Your task to perform on an android device: Go to Wikipedia Image 0: 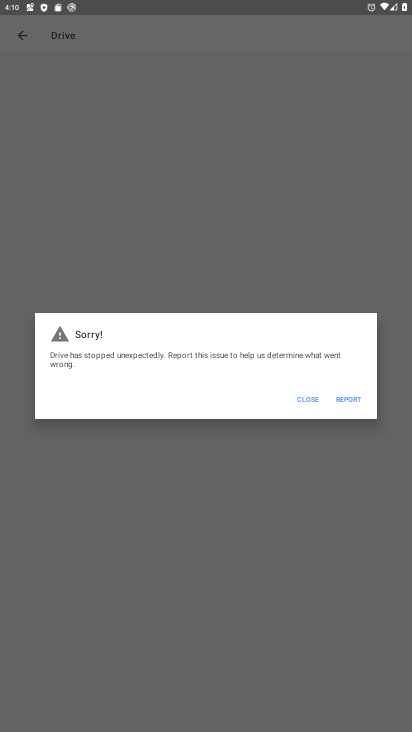
Step 0: press home button
Your task to perform on an android device: Go to Wikipedia Image 1: 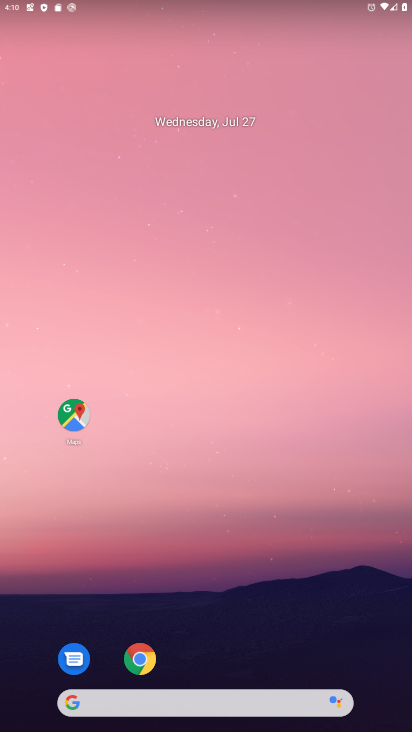
Step 1: click (151, 650)
Your task to perform on an android device: Go to Wikipedia Image 2: 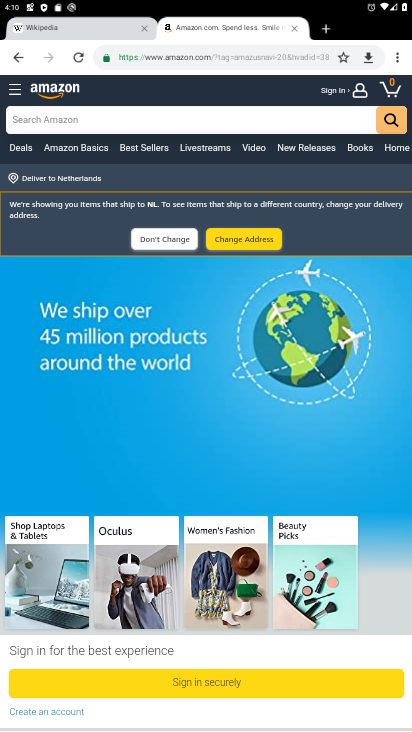
Step 2: click (194, 56)
Your task to perform on an android device: Go to Wikipedia Image 3: 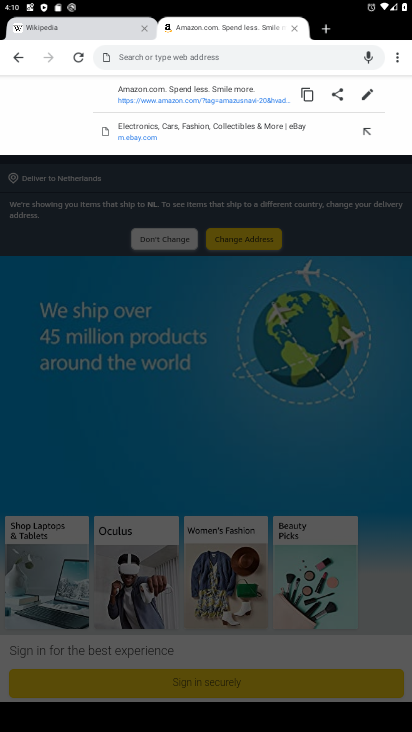
Step 3: type "wikipedia"
Your task to perform on an android device: Go to Wikipedia Image 4: 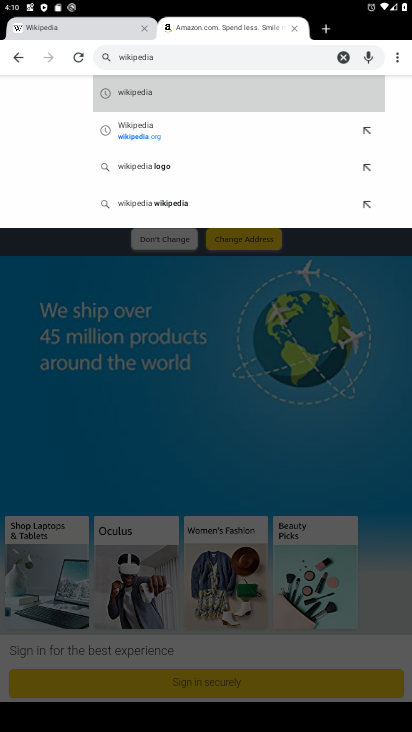
Step 4: click (249, 82)
Your task to perform on an android device: Go to Wikipedia Image 5: 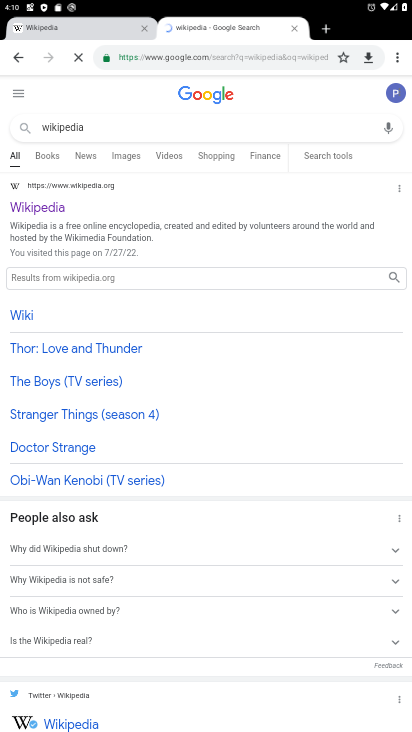
Step 5: click (42, 208)
Your task to perform on an android device: Go to Wikipedia Image 6: 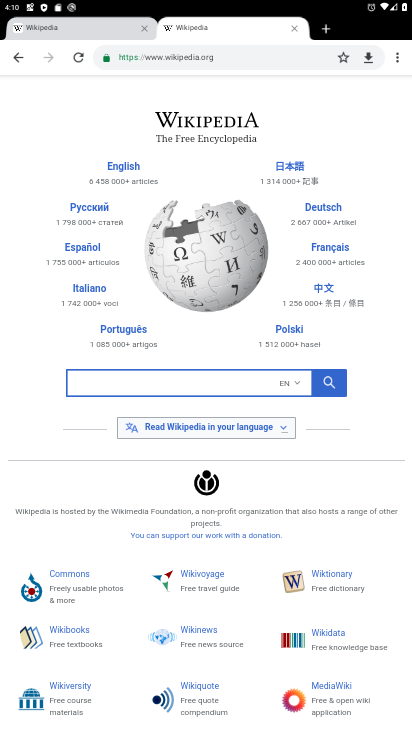
Step 6: task complete